Your task to perform on an android device: Open Youtube and go to the subscriptions tab Image 0: 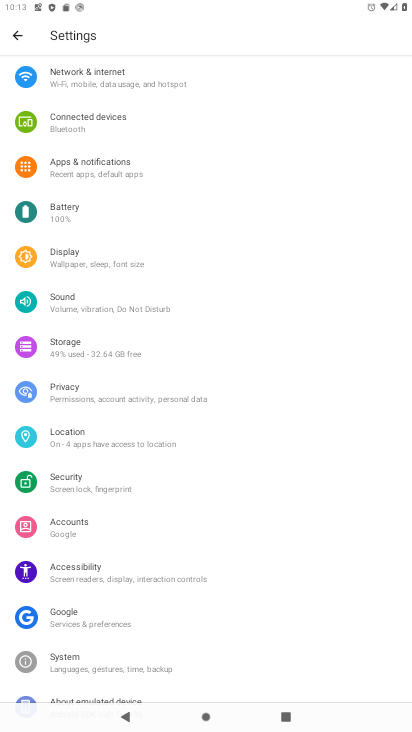
Step 0: press home button
Your task to perform on an android device: Open Youtube and go to the subscriptions tab Image 1: 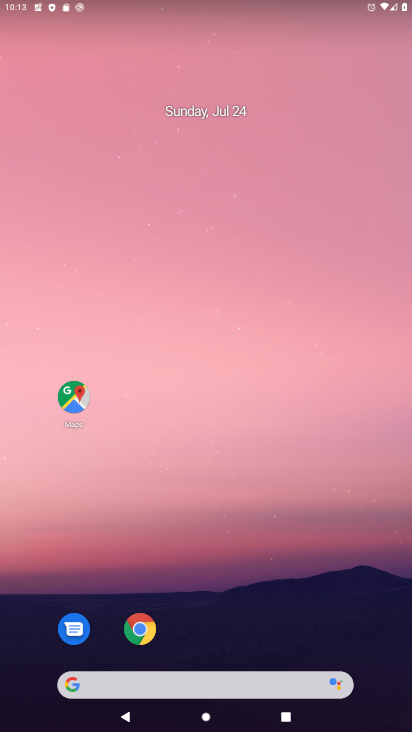
Step 1: drag from (214, 653) to (251, 200)
Your task to perform on an android device: Open Youtube and go to the subscriptions tab Image 2: 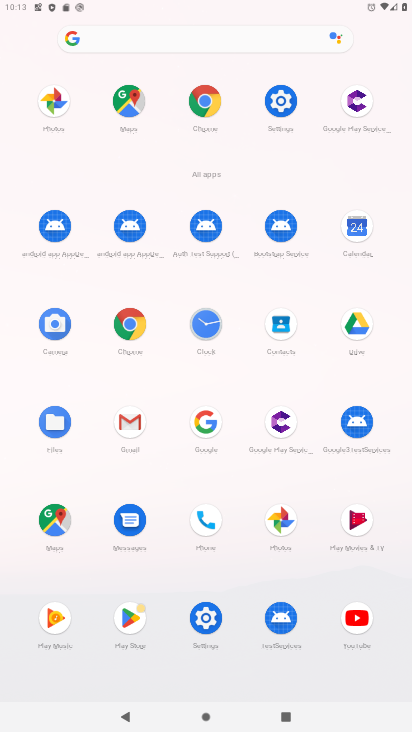
Step 2: drag from (151, 623) to (245, 0)
Your task to perform on an android device: Open Youtube and go to the subscriptions tab Image 3: 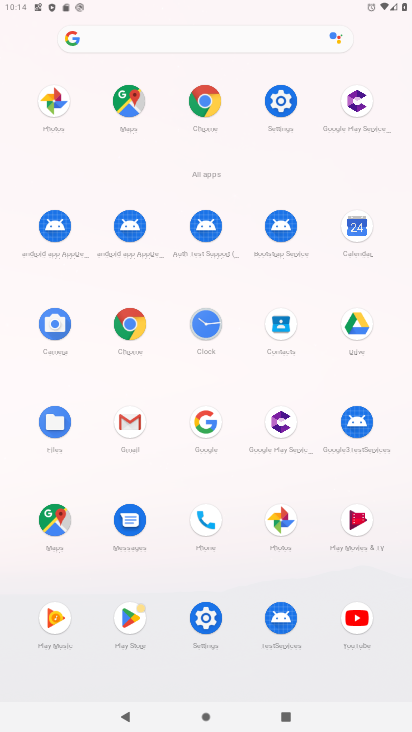
Step 3: click (354, 610)
Your task to perform on an android device: Open Youtube and go to the subscriptions tab Image 4: 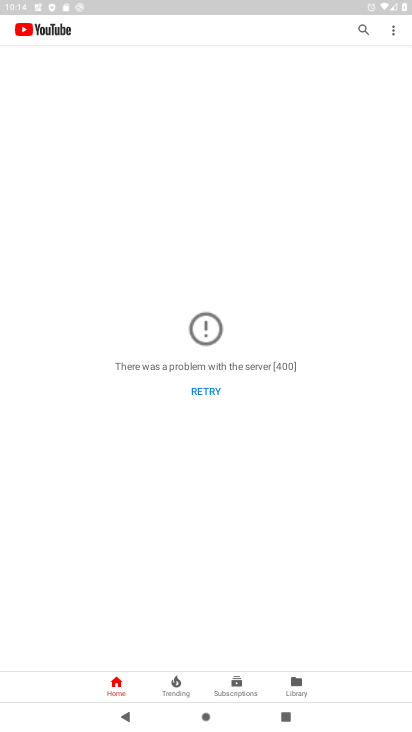
Step 4: drag from (132, 573) to (291, 124)
Your task to perform on an android device: Open Youtube and go to the subscriptions tab Image 5: 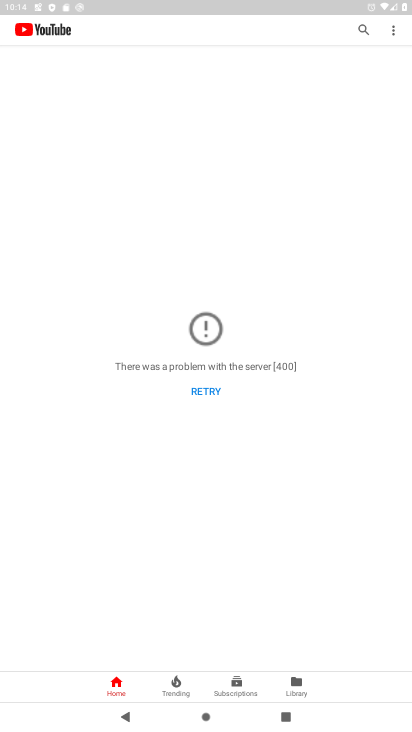
Step 5: click (231, 689)
Your task to perform on an android device: Open Youtube and go to the subscriptions tab Image 6: 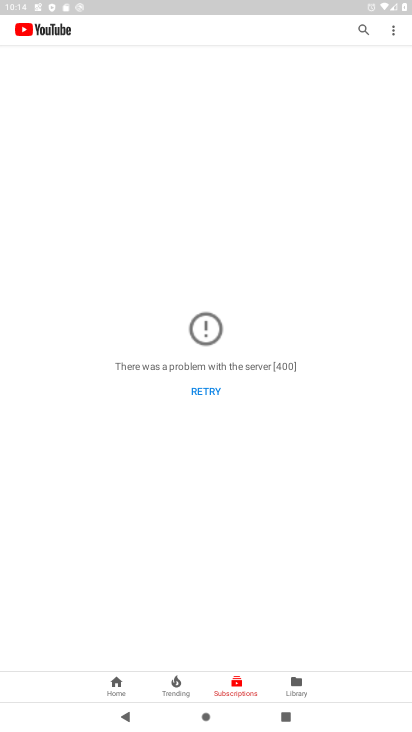
Step 6: click (280, 257)
Your task to perform on an android device: Open Youtube and go to the subscriptions tab Image 7: 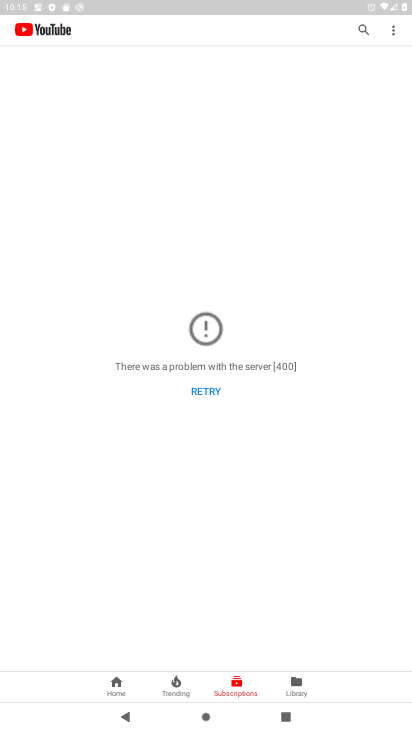
Step 7: task complete